Your task to perform on an android device: Find coffee shops on Maps Image 0: 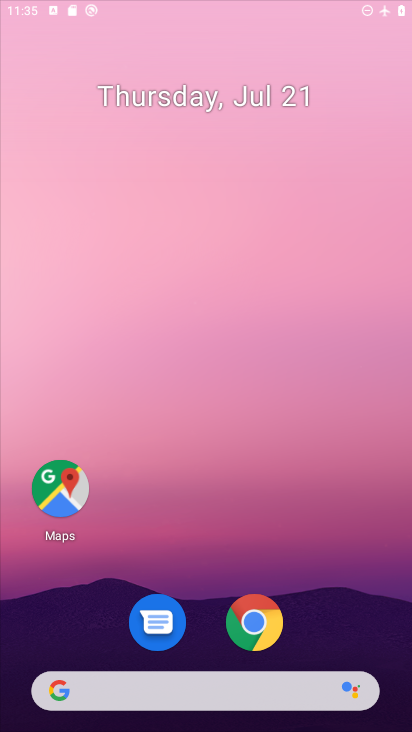
Step 0: click (223, 704)
Your task to perform on an android device: Find coffee shops on Maps Image 1: 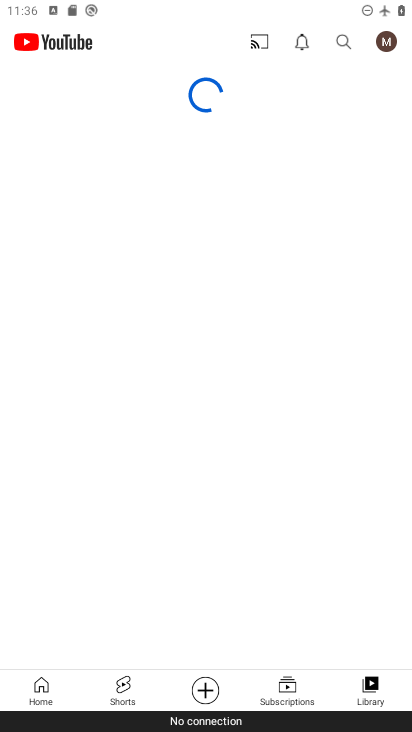
Step 1: press home button
Your task to perform on an android device: Find coffee shops on Maps Image 2: 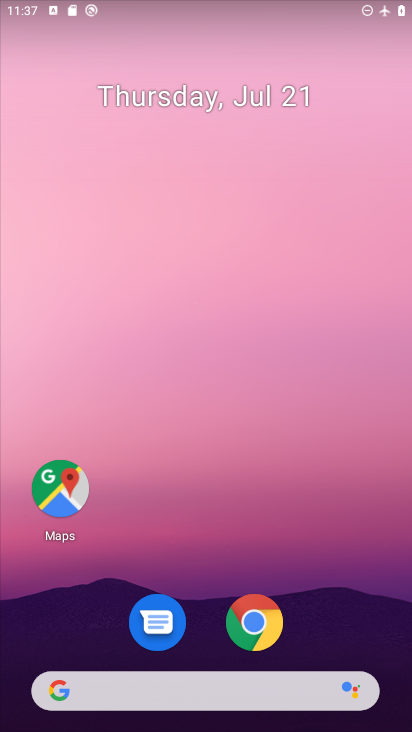
Step 2: click (66, 481)
Your task to perform on an android device: Find coffee shops on Maps Image 3: 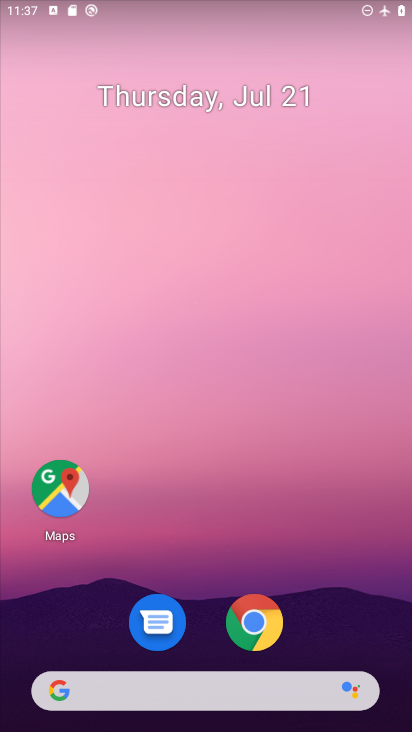
Step 3: click (66, 481)
Your task to perform on an android device: Find coffee shops on Maps Image 4: 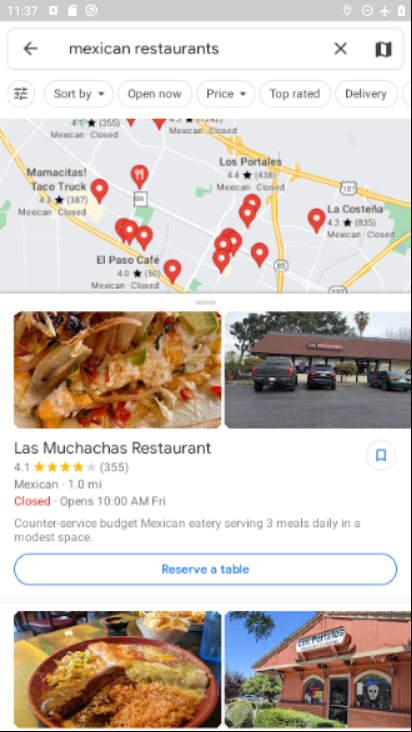
Step 4: click (343, 46)
Your task to perform on an android device: Find coffee shops on Maps Image 5: 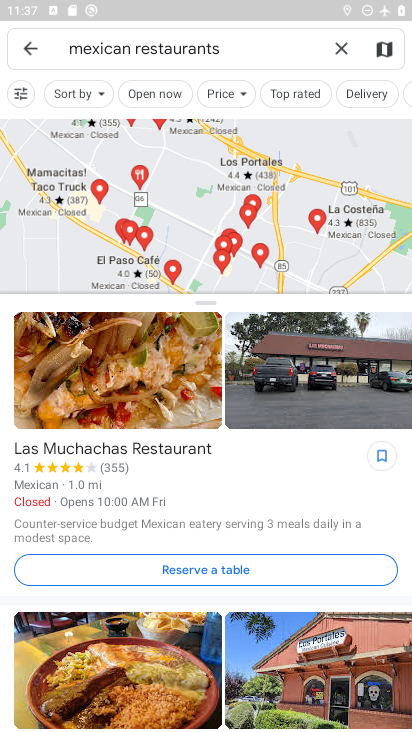
Step 5: click (330, 48)
Your task to perform on an android device: Find coffee shops on Maps Image 6: 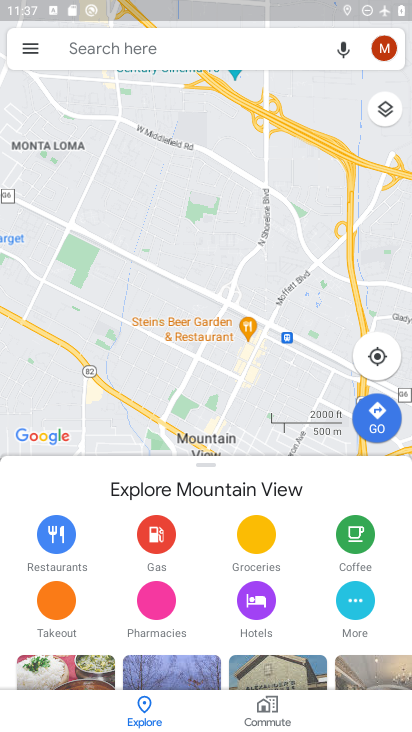
Step 6: click (198, 60)
Your task to perform on an android device: Find coffee shops on Maps Image 7: 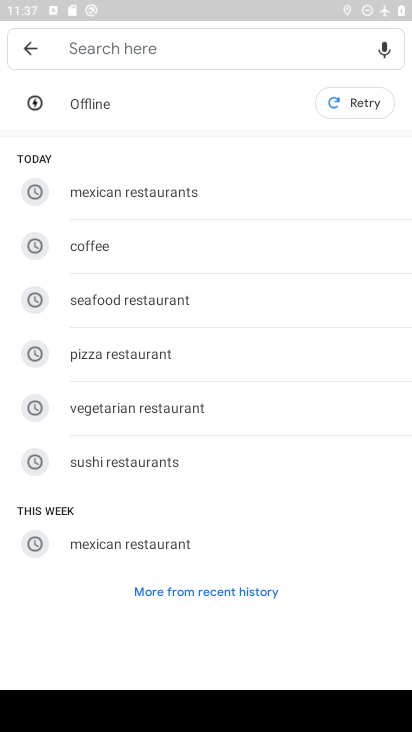
Step 7: click (133, 236)
Your task to perform on an android device: Find coffee shops on Maps Image 8: 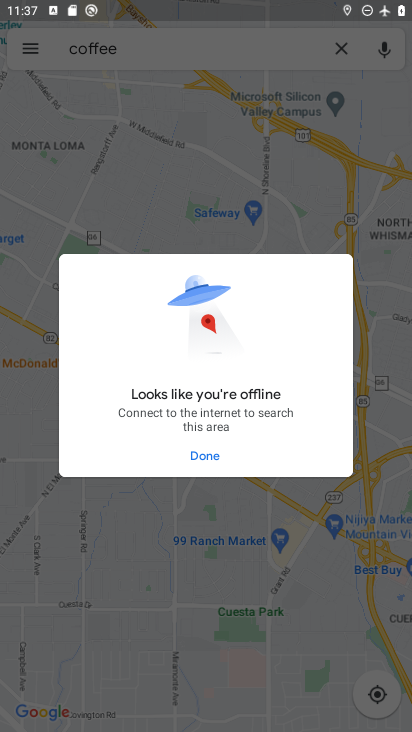
Step 8: task complete